Your task to perform on an android device: How much does a 3 bedroom apartment rent for in Seattle? Image 0: 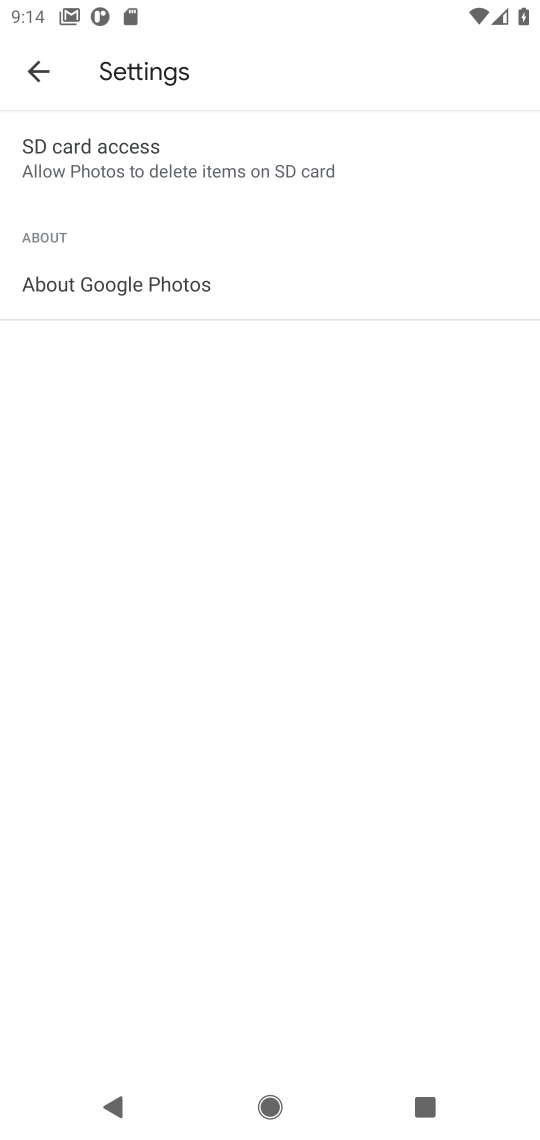
Step 0: press home button
Your task to perform on an android device: How much does a 3 bedroom apartment rent for in Seattle? Image 1: 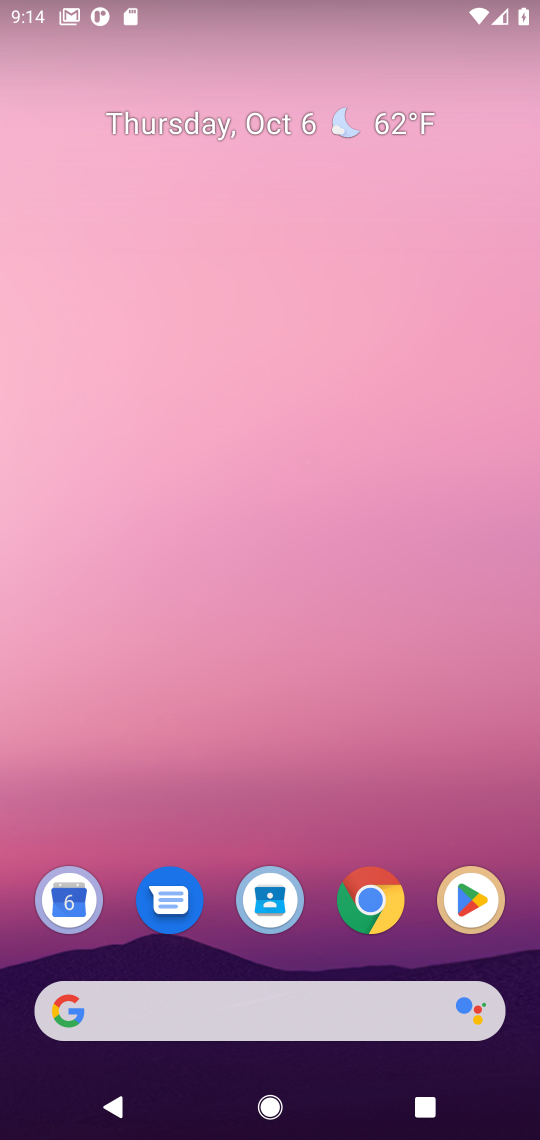
Step 1: click (155, 1019)
Your task to perform on an android device: How much does a 3 bedroom apartment rent for in Seattle? Image 2: 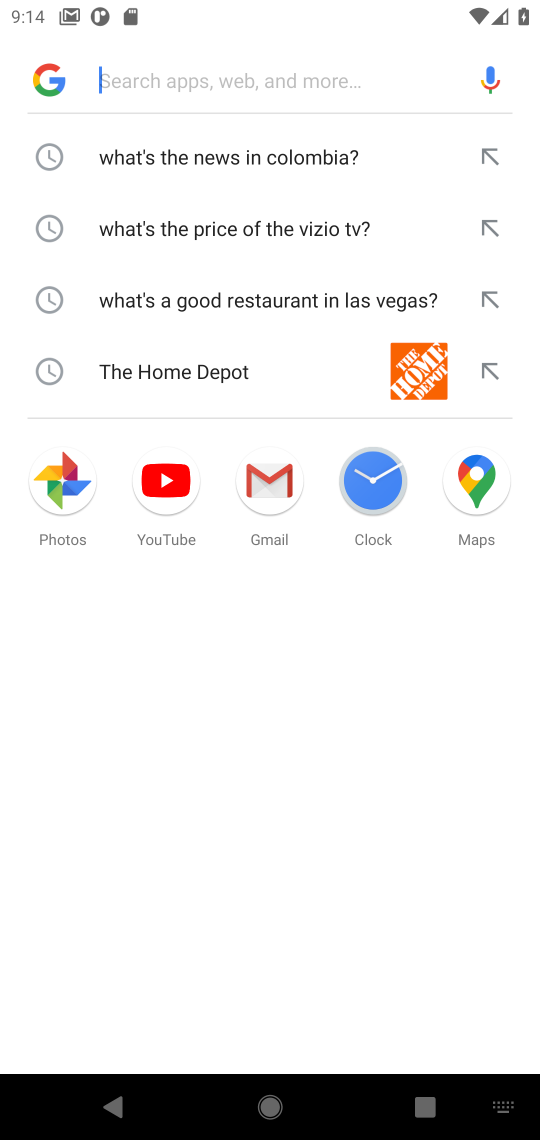
Step 2: type "How much does a 3 bedroom apartment rent for in Seattle?"
Your task to perform on an android device: How much does a 3 bedroom apartment rent for in Seattle? Image 3: 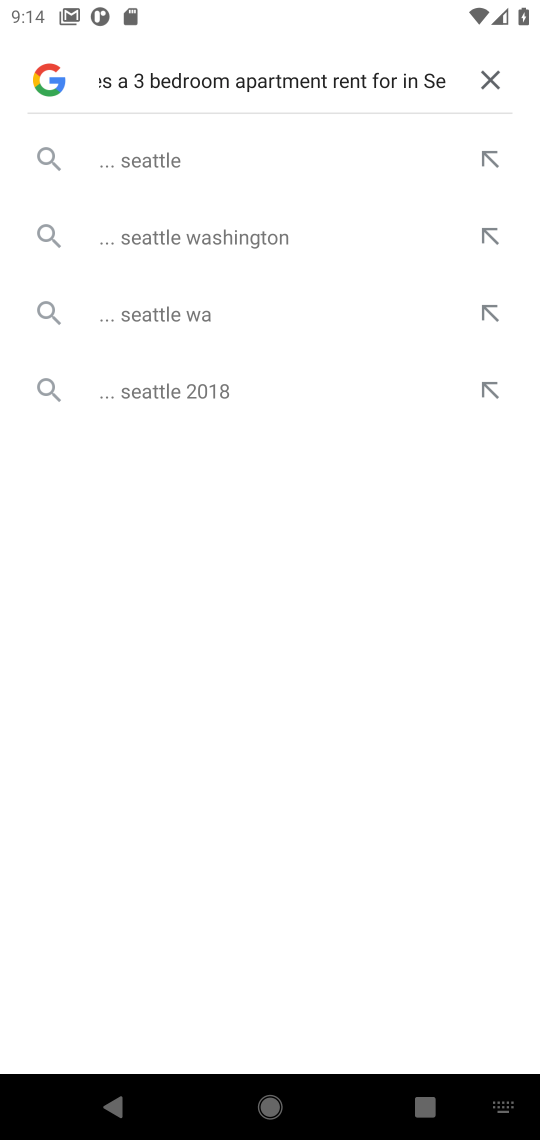
Step 3: press enter
Your task to perform on an android device: How much does a 3 bedroom apartment rent for in Seattle? Image 4: 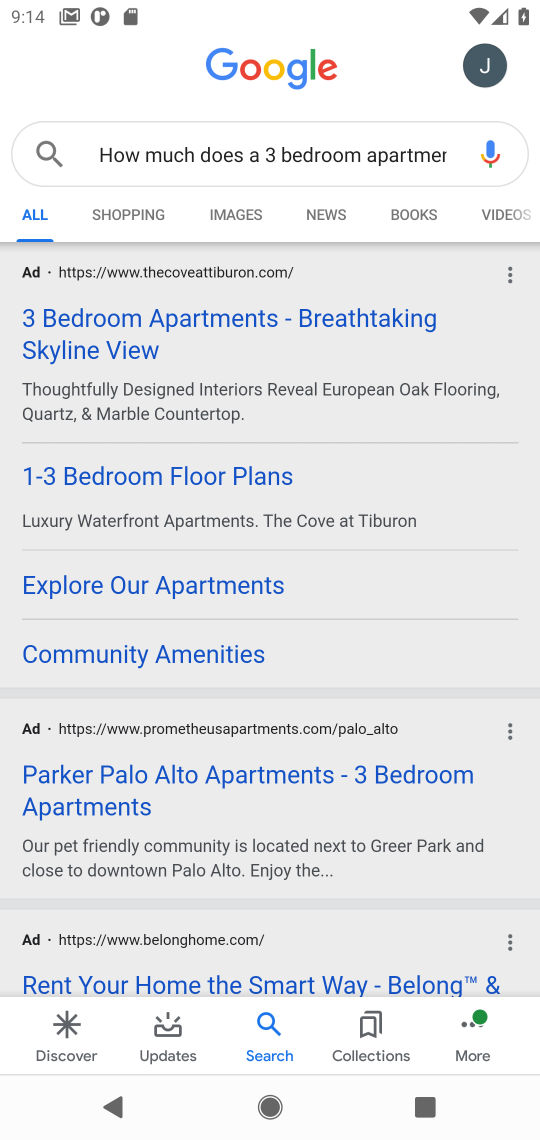
Step 4: drag from (367, 837) to (360, 569)
Your task to perform on an android device: How much does a 3 bedroom apartment rent for in Seattle? Image 5: 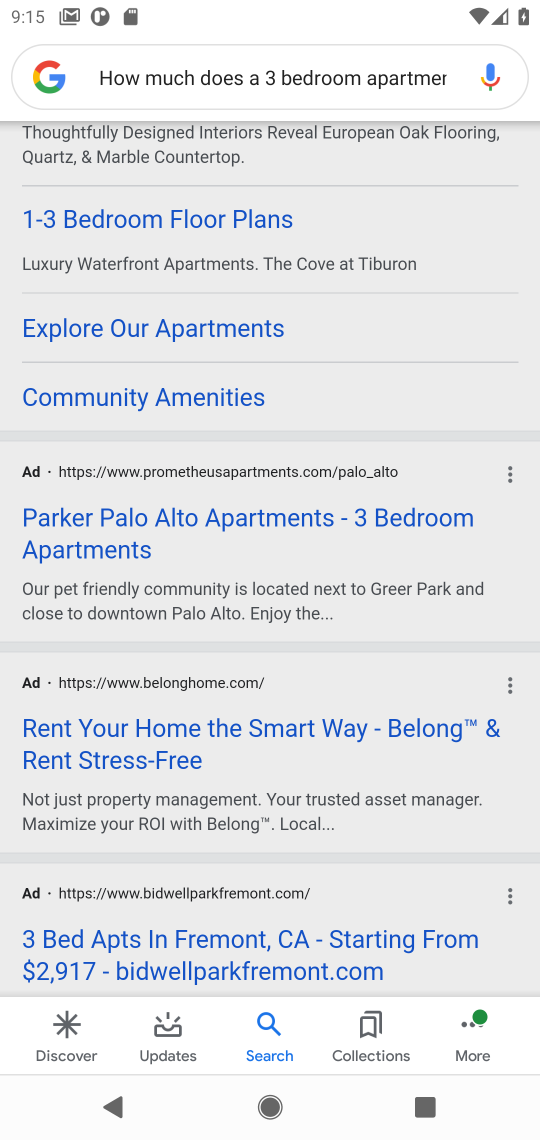
Step 5: drag from (322, 826) to (353, 508)
Your task to perform on an android device: How much does a 3 bedroom apartment rent for in Seattle? Image 6: 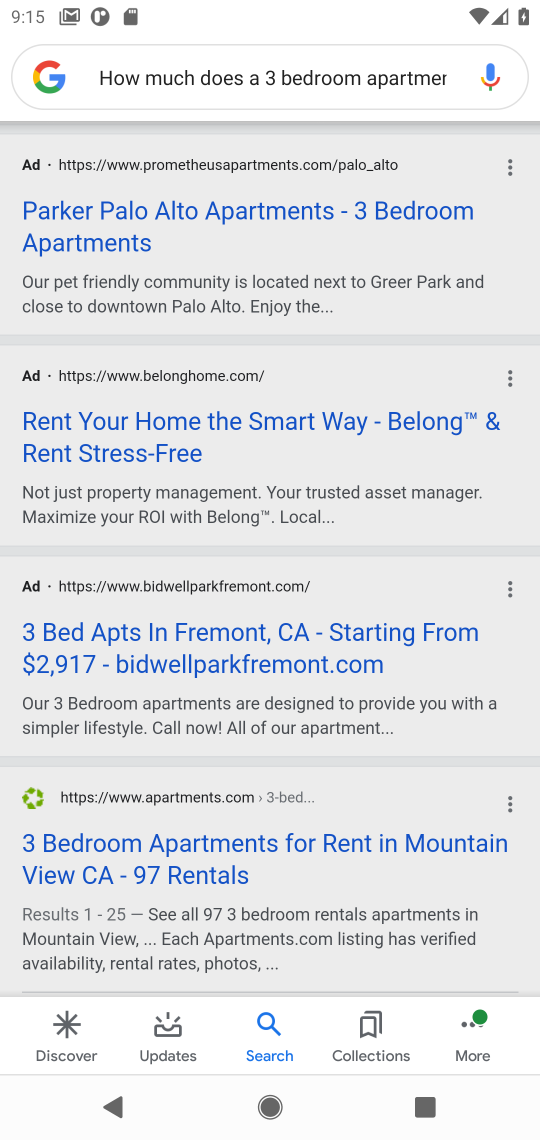
Step 6: drag from (302, 830) to (289, 374)
Your task to perform on an android device: How much does a 3 bedroom apartment rent for in Seattle? Image 7: 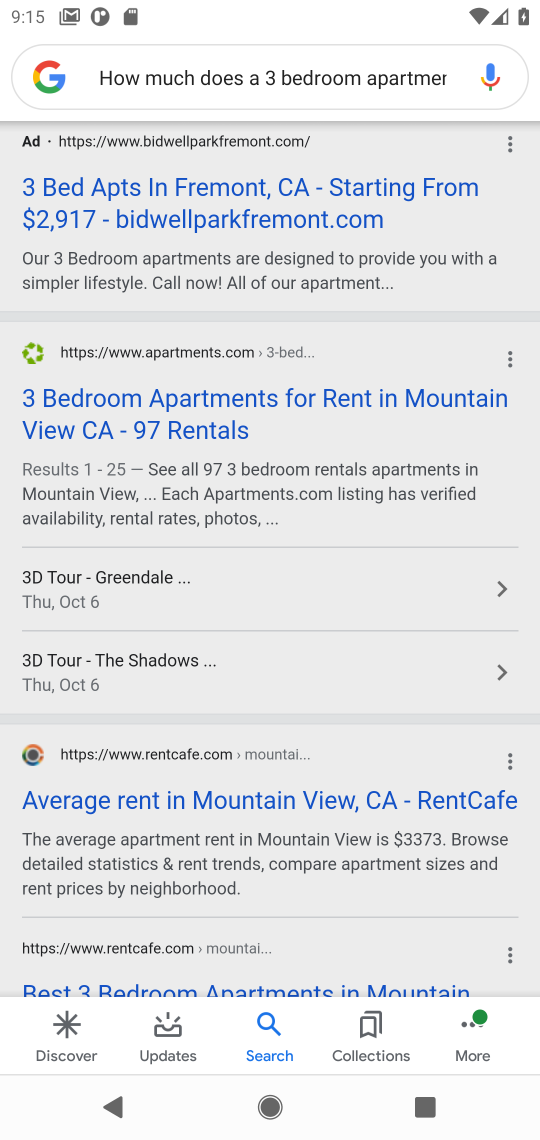
Step 7: drag from (301, 899) to (356, 536)
Your task to perform on an android device: How much does a 3 bedroom apartment rent for in Seattle? Image 8: 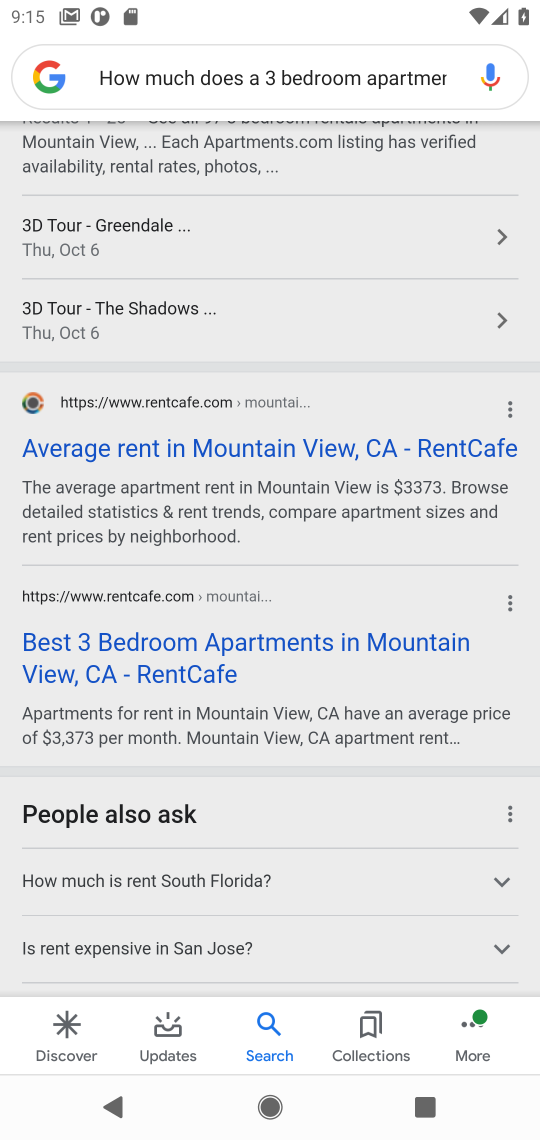
Step 8: drag from (345, 319) to (377, 764)
Your task to perform on an android device: How much does a 3 bedroom apartment rent for in Seattle? Image 9: 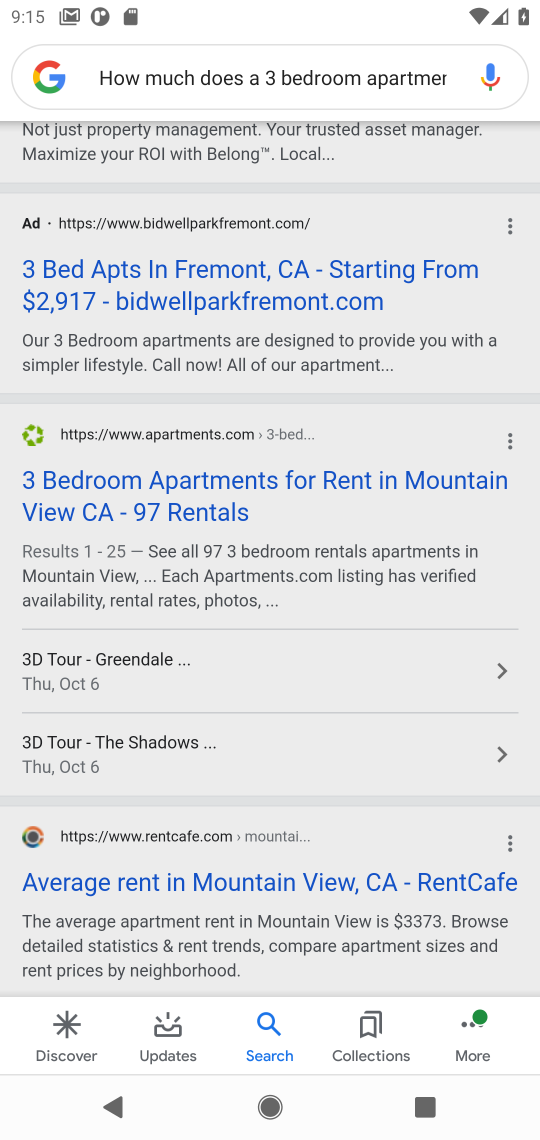
Step 9: drag from (326, 319) to (364, 790)
Your task to perform on an android device: How much does a 3 bedroom apartment rent for in Seattle? Image 10: 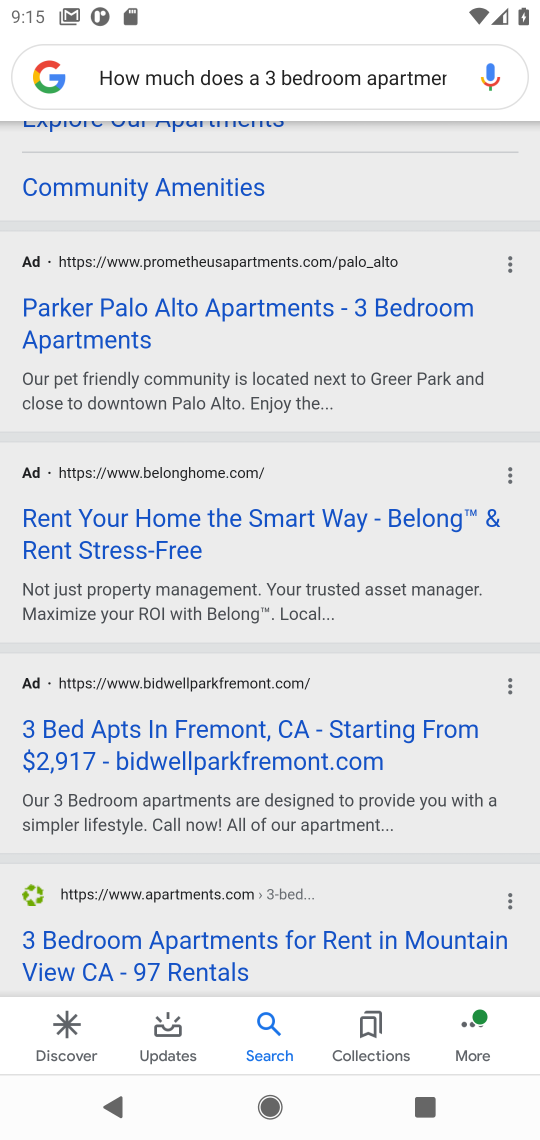
Step 10: drag from (346, 180) to (329, 791)
Your task to perform on an android device: How much does a 3 bedroom apartment rent for in Seattle? Image 11: 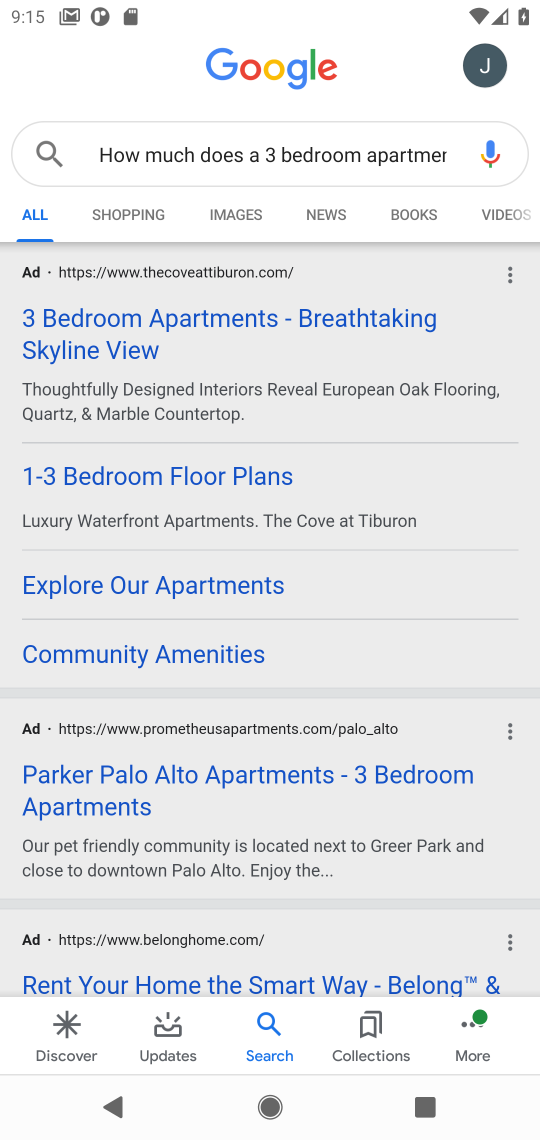
Step 11: click (310, 320)
Your task to perform on an android device: How much does a 3 bedroom apartment rent for in Seattle? Image 12: 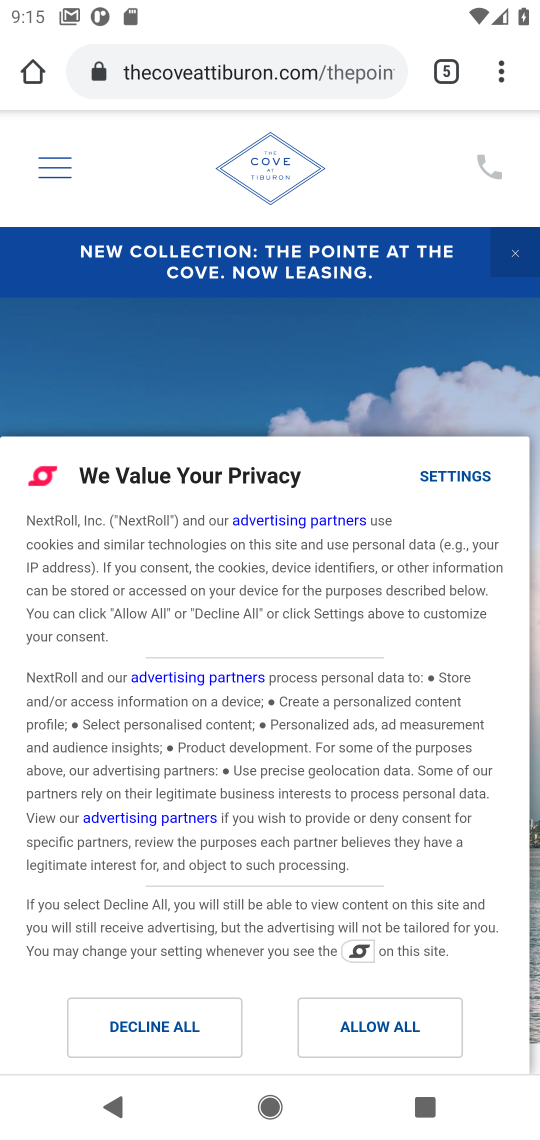
Step 12: click (378, 1036)
Your task to perform on an android device: How much does a 3 bedroom apartment rent for in Seattle? Image 13: 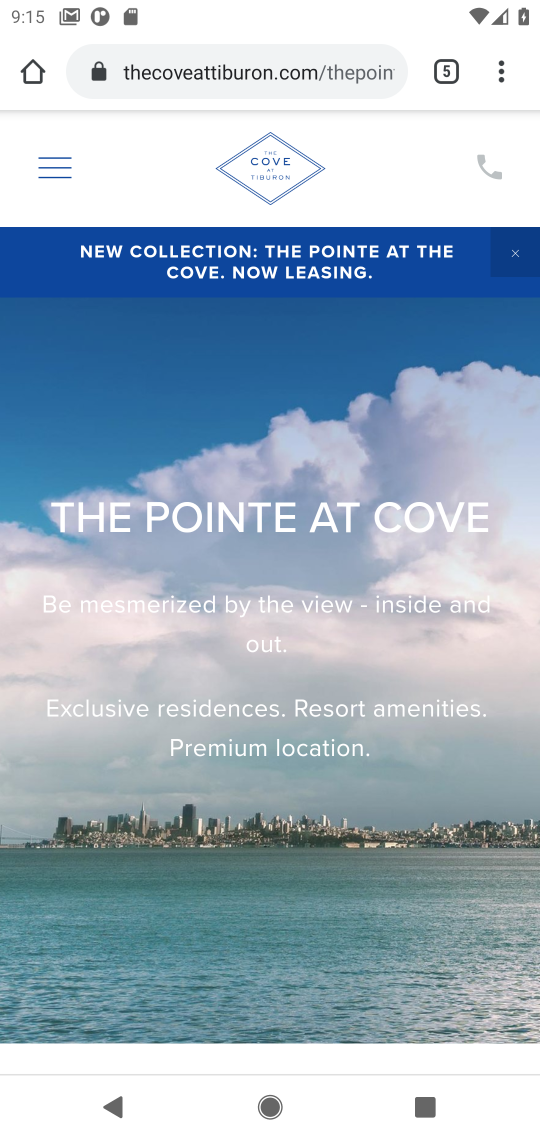
Step 13: task complete